Your task to perform on an android device: star an email in the gmail app Image 0: 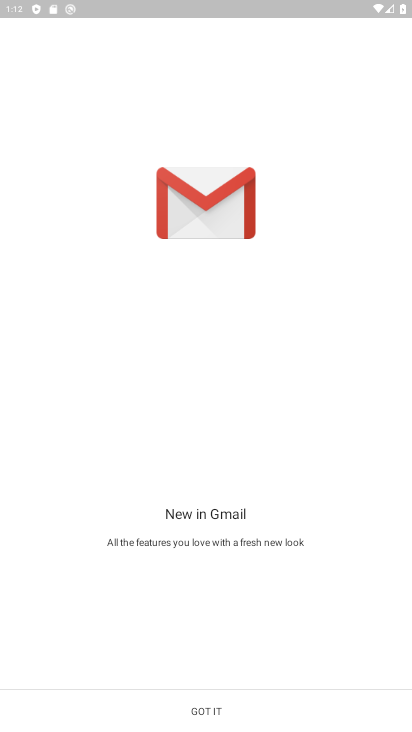
Step 0: click (224, 708)
Your task to perform on an android device: star an email in the gmail app Image 1: 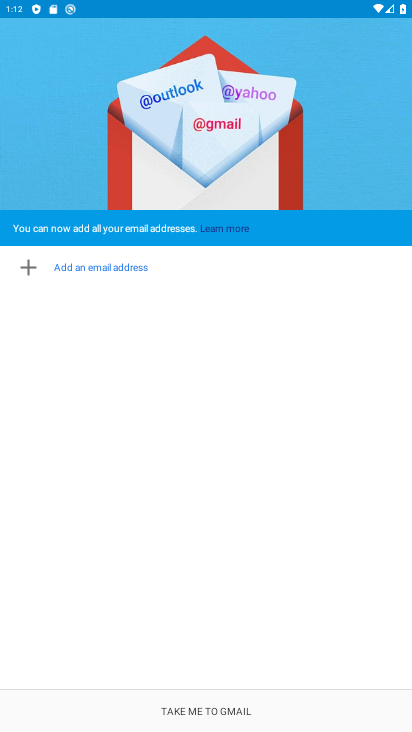
Step 1: click (155, 708)
Your task to perform on an android device: star an email in the gmail app Image 2: 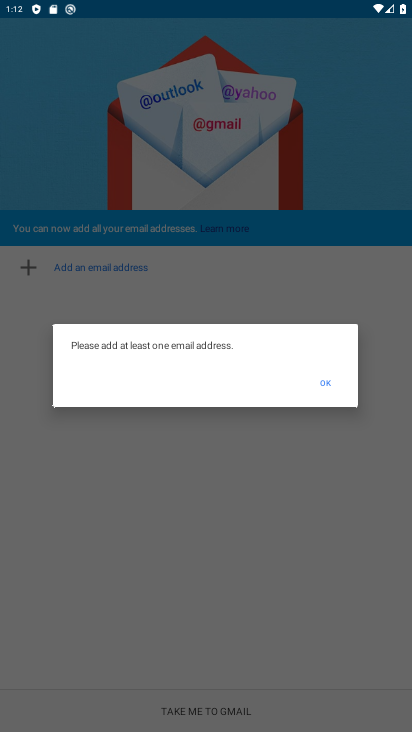
Step 2: click (331, 381)
Your task to perform on an android device: star an email in the gmail app Image 3: 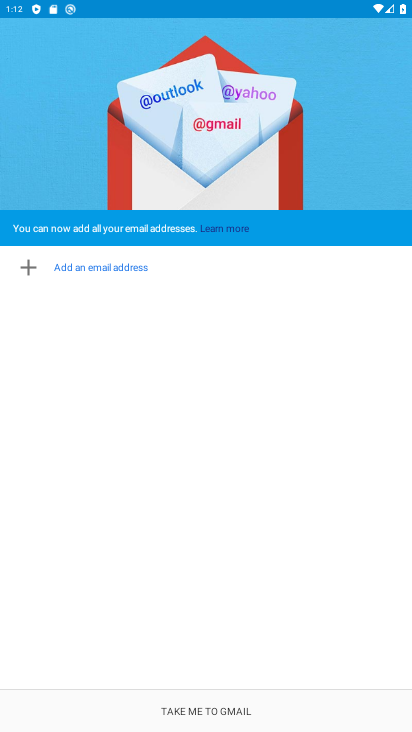
Step 3: click (194, 704)
Your task to perform on an android device: star an email in the gmail app Image 4: 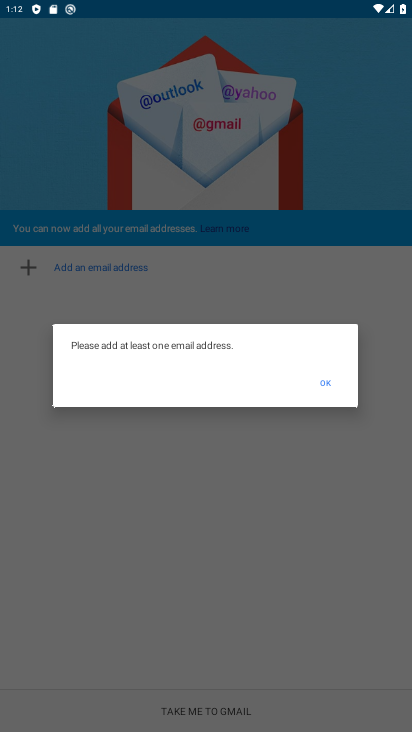
Step 4: click (350, 381)
Your task to perform on an android device: star an email in the gmail app Image 5: 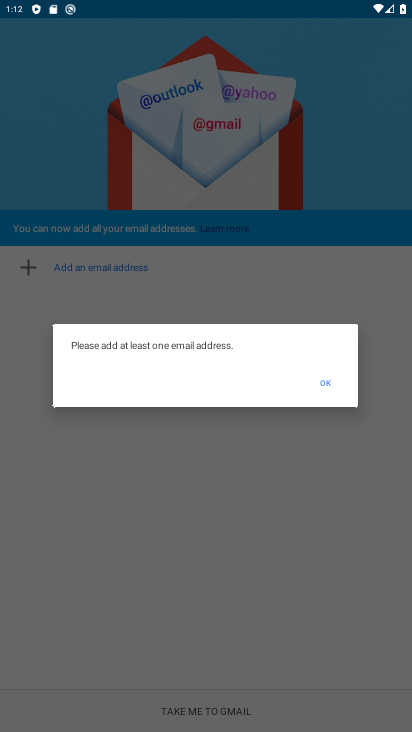
Step 5: click (321, 390)
Your task to perform on an android device: star an email in the gmail app Image 6: 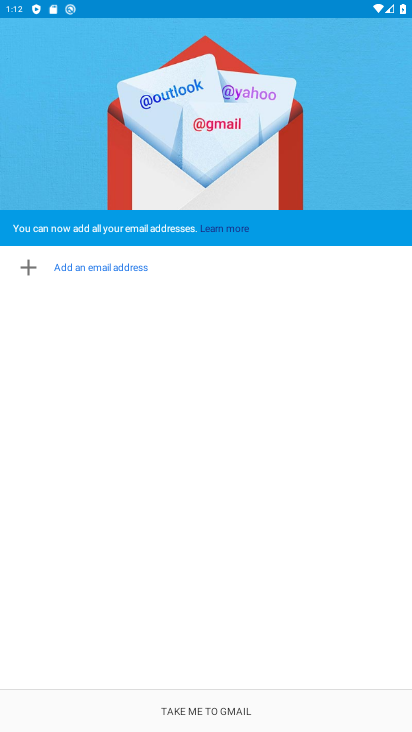
Step 6: task complete